Your task to perform on an android device: install app "Google Sheets" Image 0: 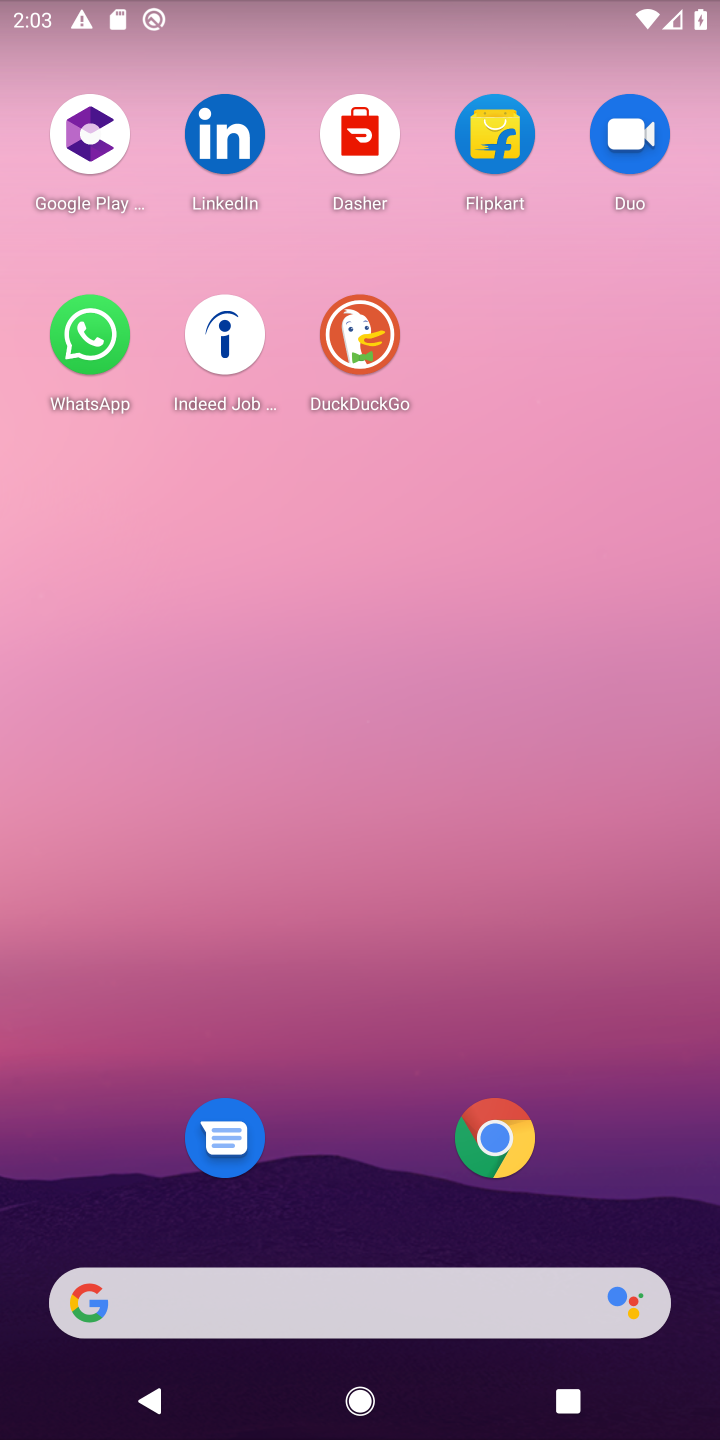
Step 0: drag from (320, 1254) to (331, 180)
Your task to perform on an android device: install app "Google Sheets" Image 1: 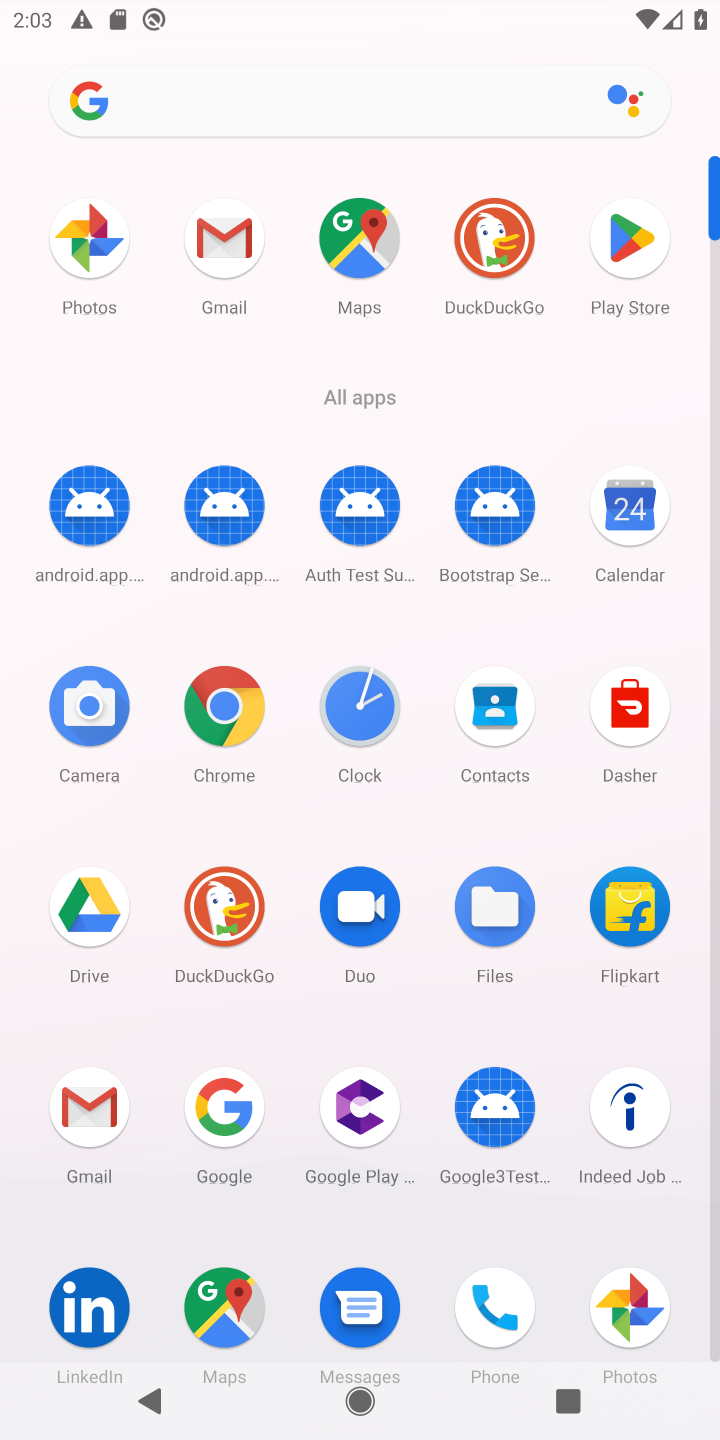
Step 1: click (621, 246)
Your task to perform on an android device: install app "Google Sheets" Image 2: 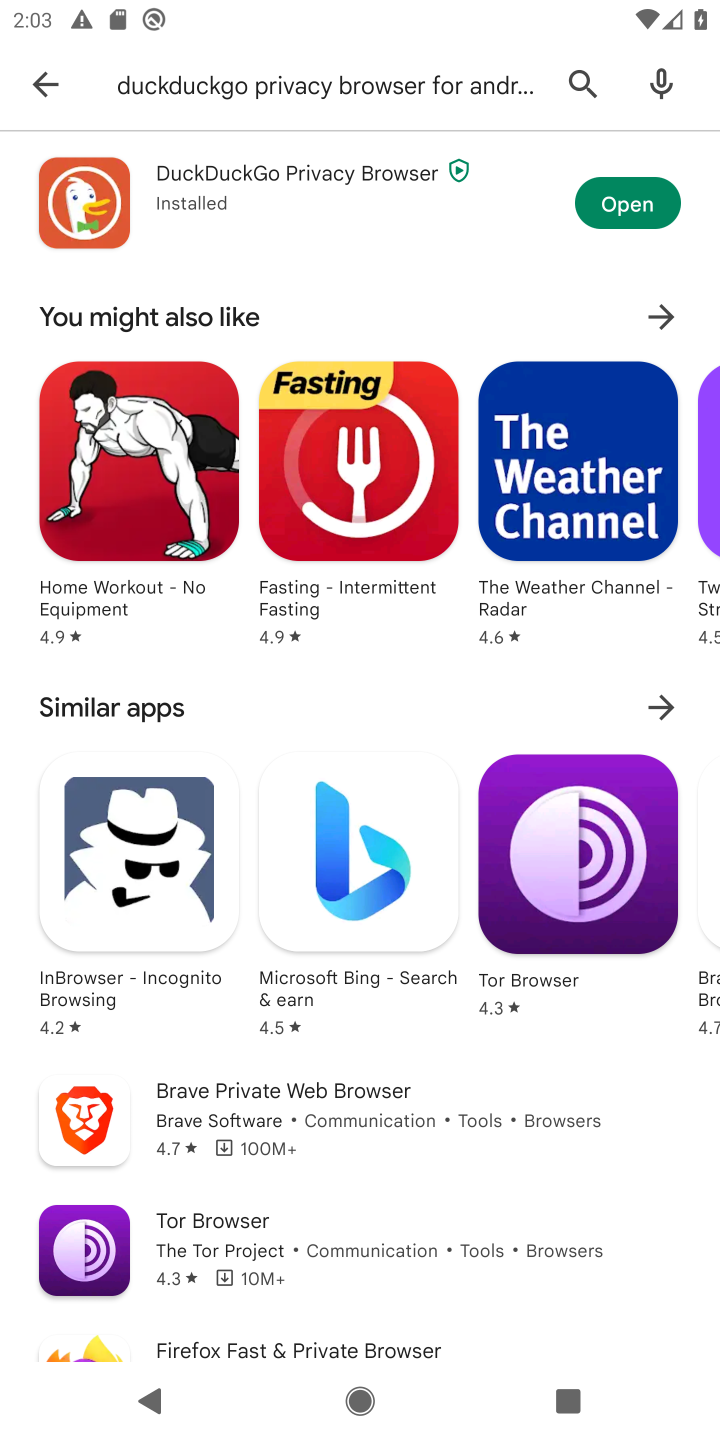
Step 2: click (581, 81)
Your task to perform on an android device: install app "Google Sheets" Image 3: 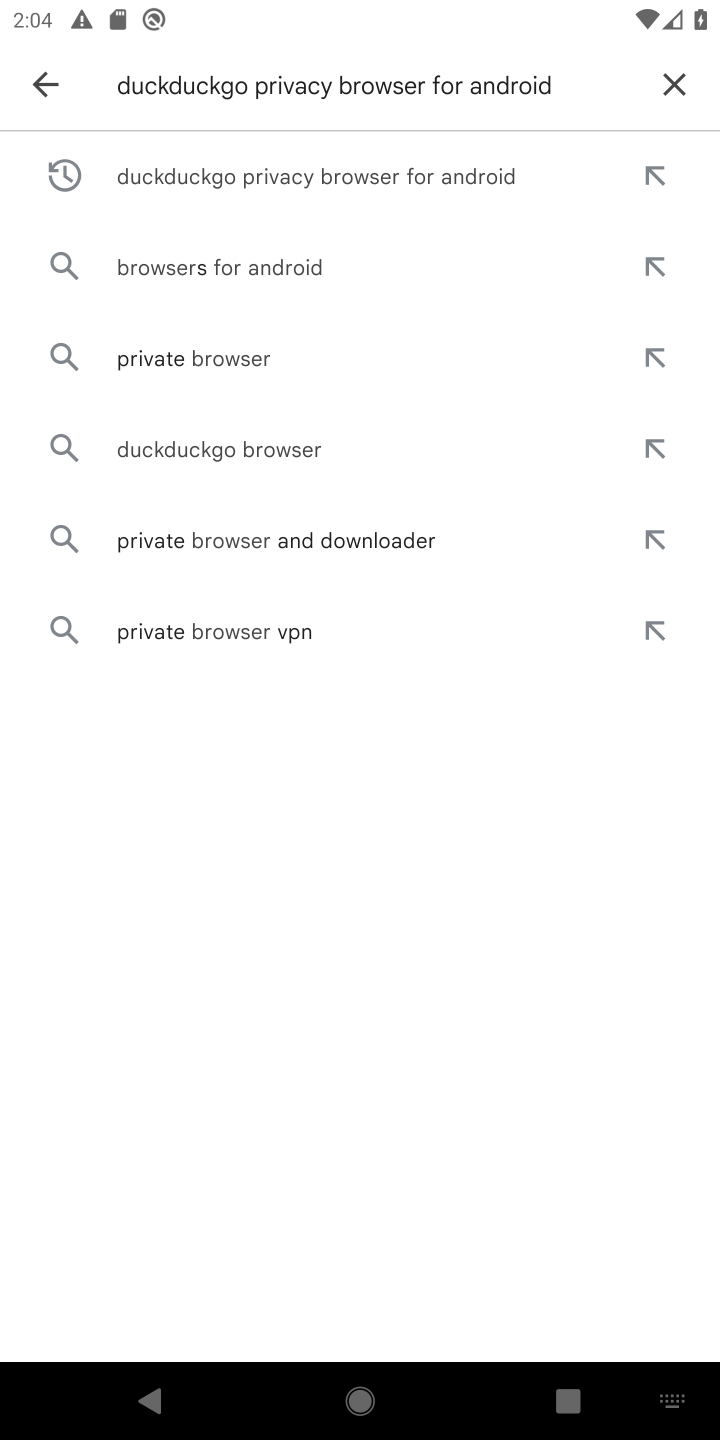
Step 3: click (672, 81)
Your task to perform on an android device: install app "Google Sheets" Image 4: 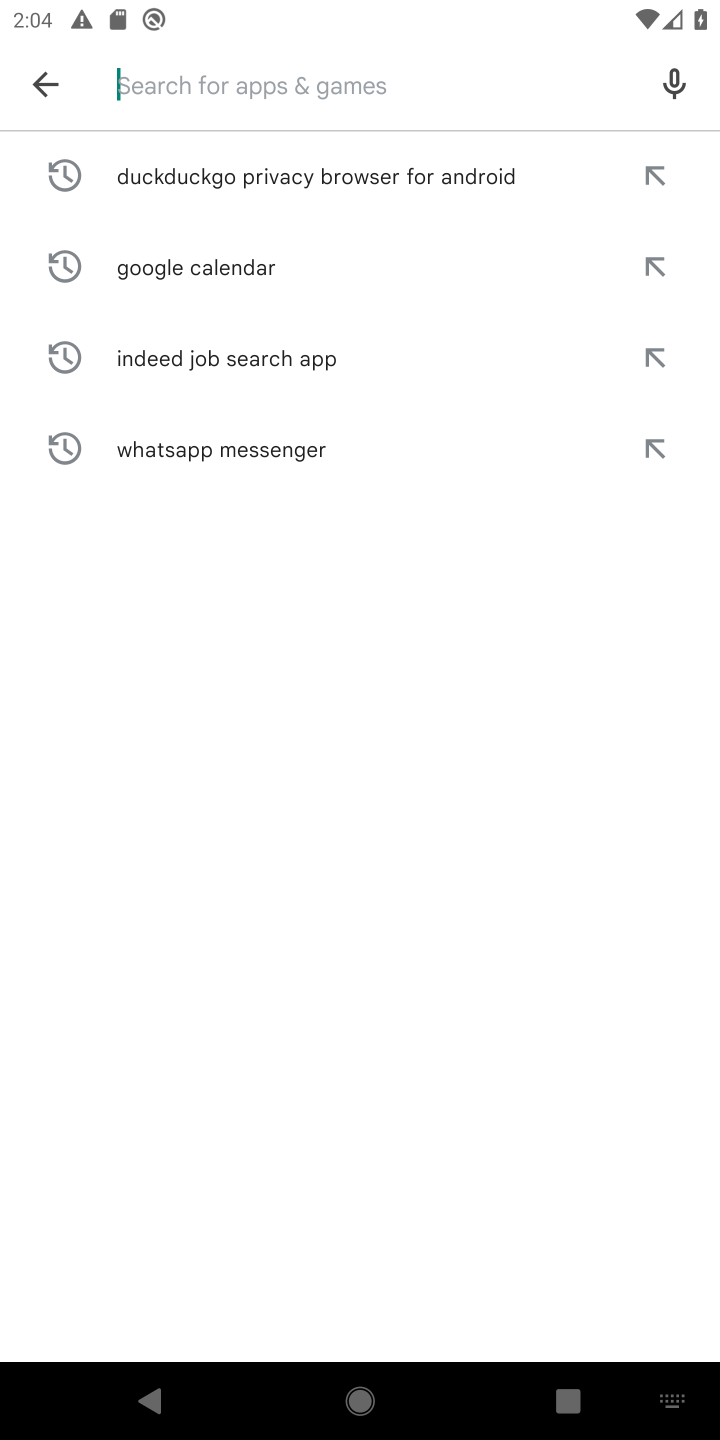
Step 4: type "Google Sheets"
Your task to perform on an android device: install app "Google Sheets" Image 5: 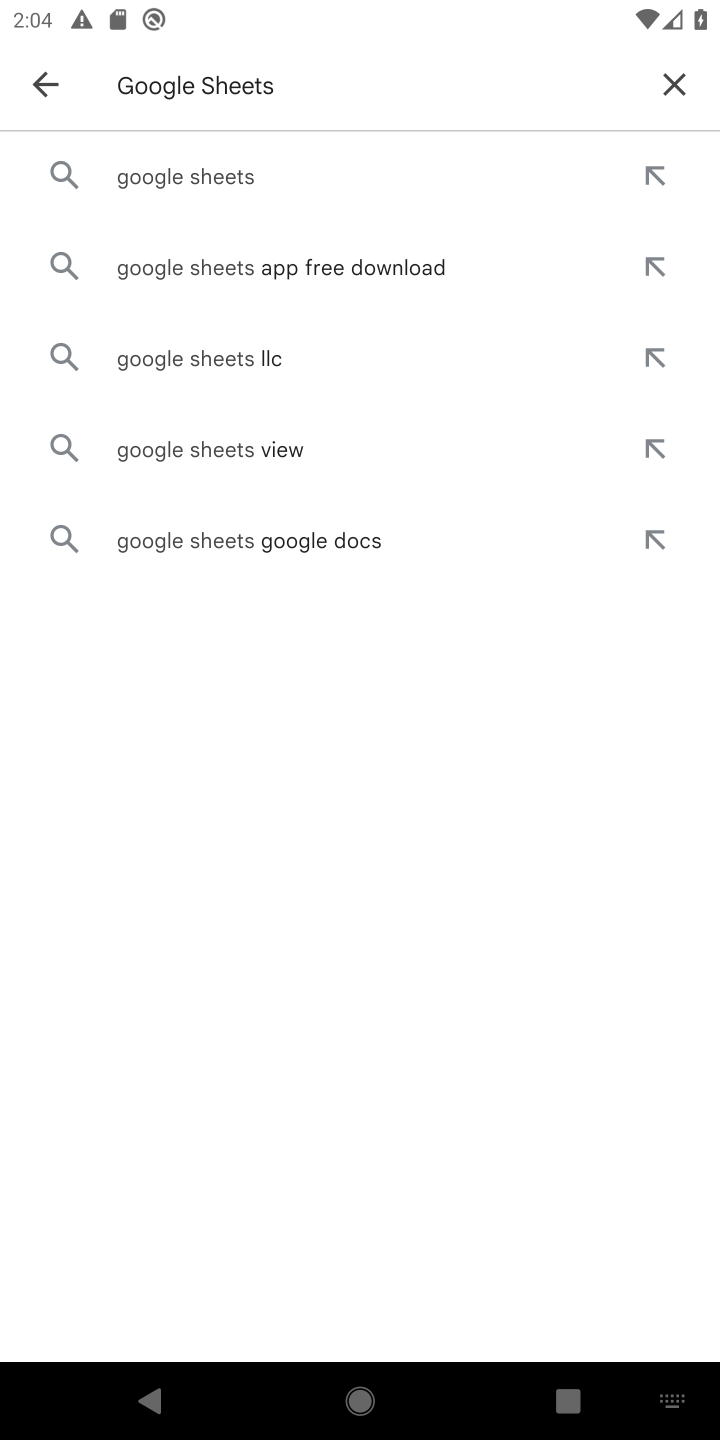
Step 5: click (223, 176)
Your task to perform on an android device: install app "Google Sheets" Image 6: 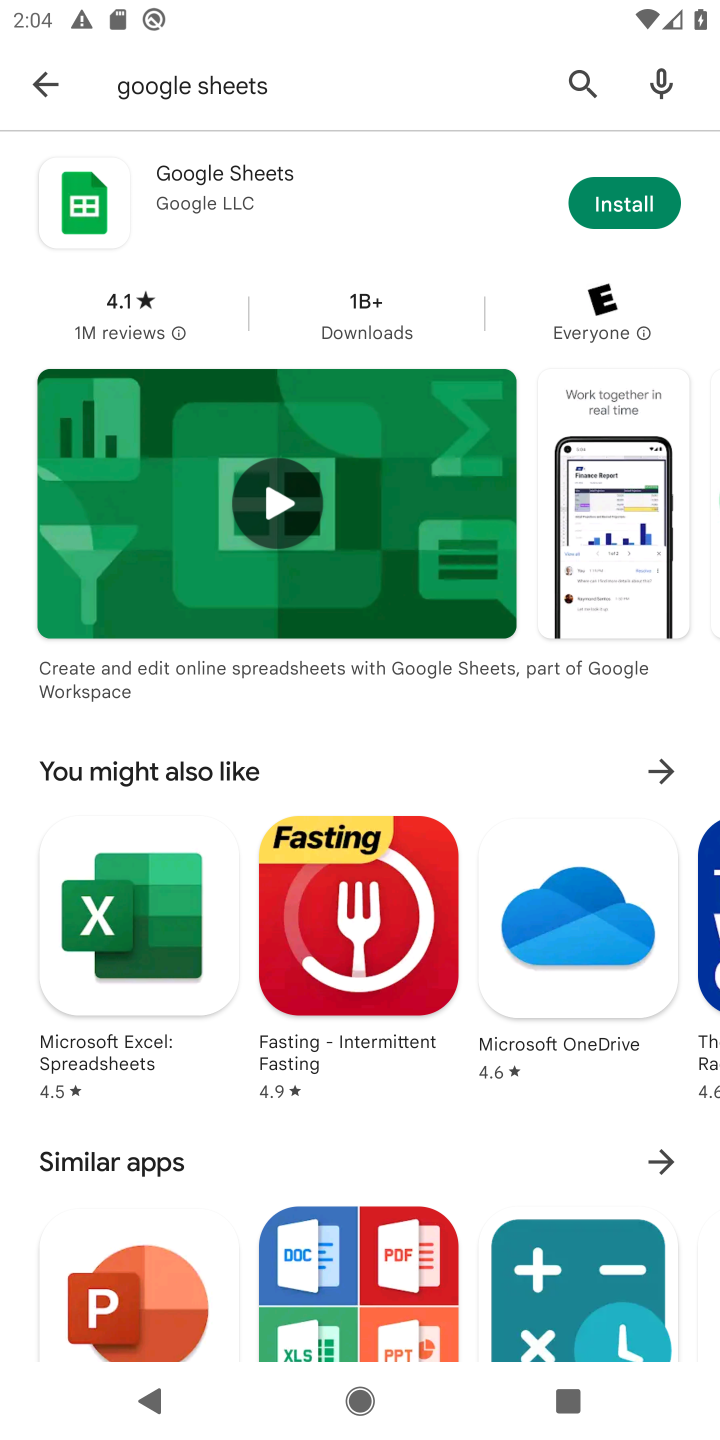
Step 6: click (628, 196)
Your task to perform on an android device: install app "Google Sheets" Image 7: 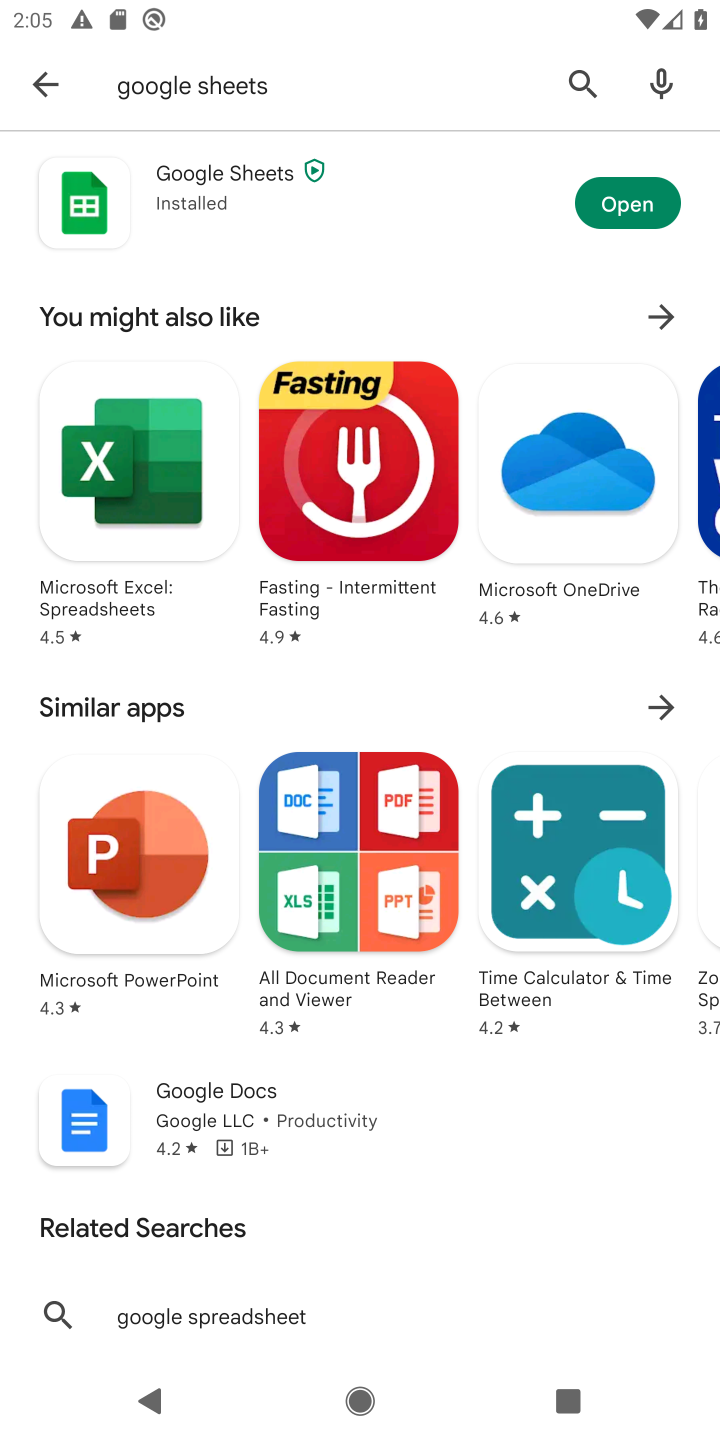
Step 7: task complete